Your task to perform on an android device: Go to display settings Image 0: 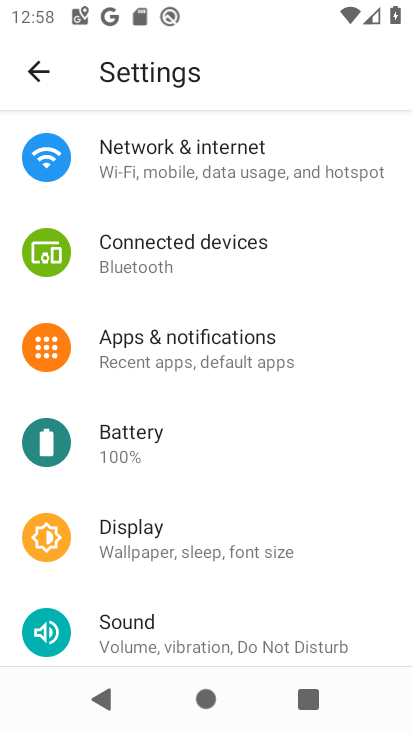
Step 0: press home button
Your task to perform on an android device: Go to display settings Image 1: 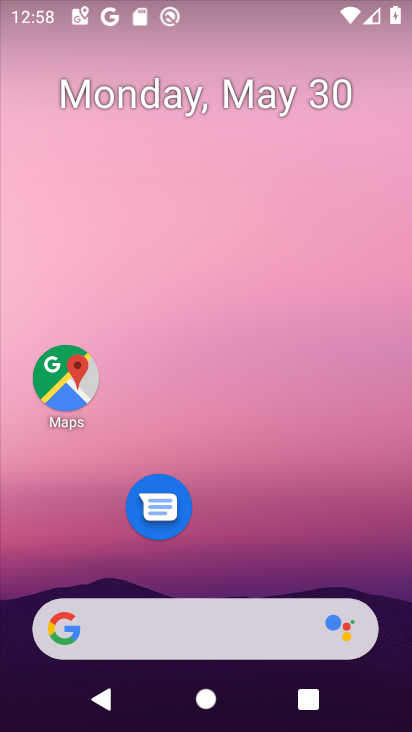
Step 1: drag from (263, 568) to (274, 93)
Your task to perform on an android device: Go to display settings Image 2: 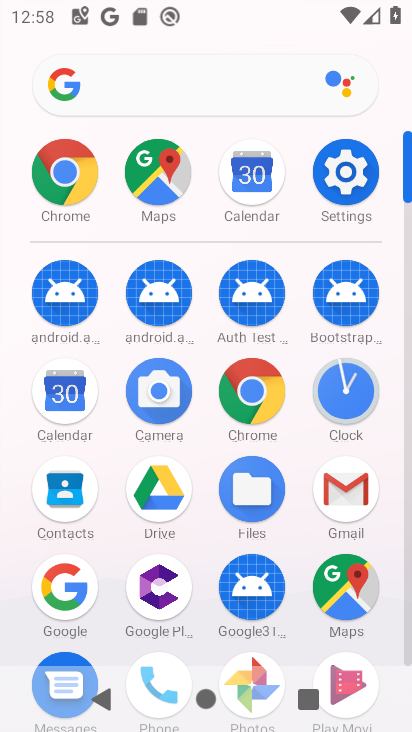
Step 2: click (345, 165)
Your task to perform on an android device: Go to display settings Image 3: 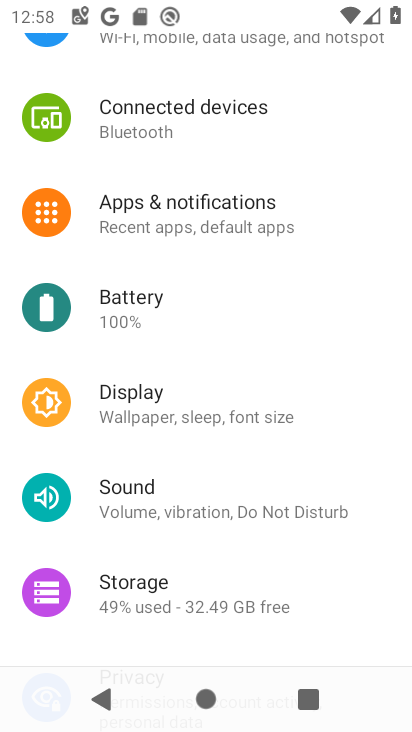
Step 3: click (218, 414)
Your task to perform on an android device: Go to display settings Image 4: 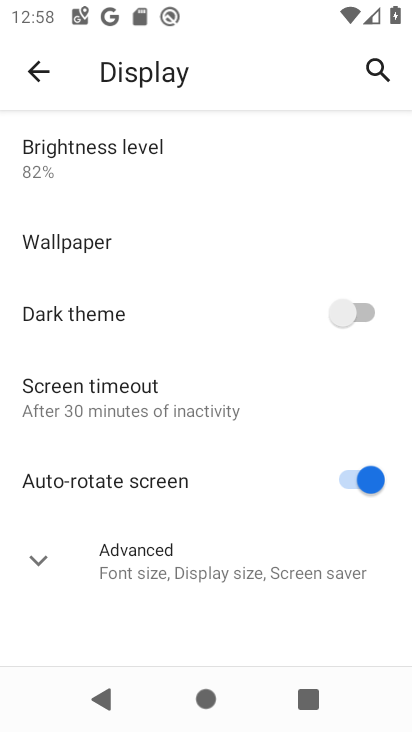
Step 4: task complete